Your task to perform on an android device: set default search engine in the chrome app Image 0: 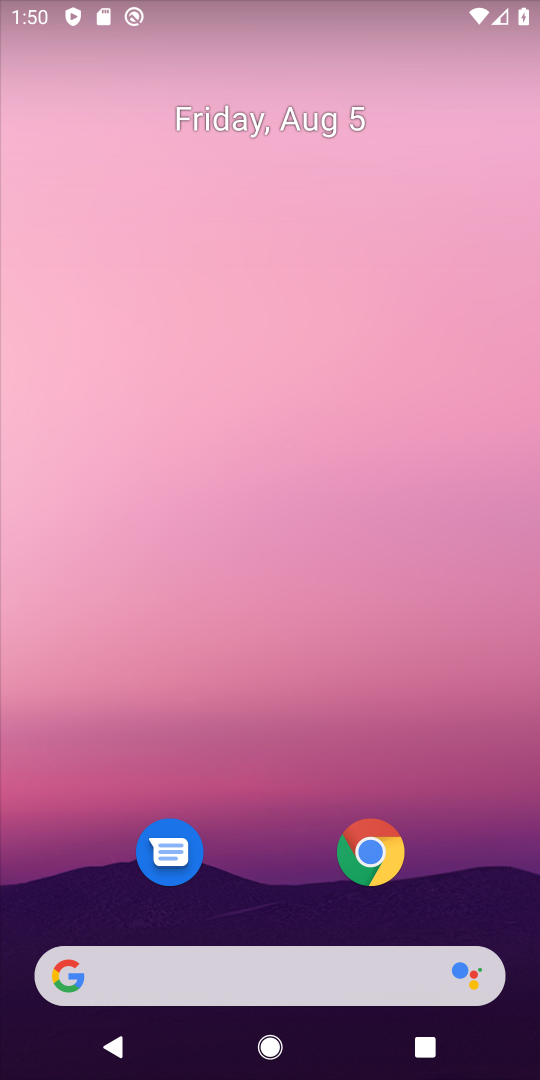
Step 0: click (357, 854)
Your task to perform on an android device: set default search engine in the chrome app Image 1: 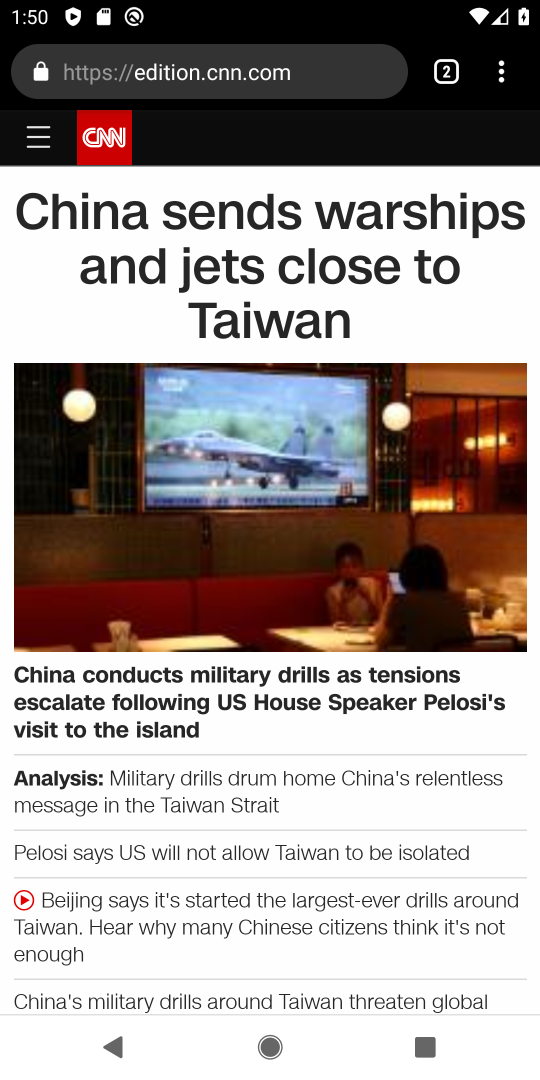
Step 1: click (500, 72)
Your task to perform on an android device: set default search engine in the chrome app Image 2: 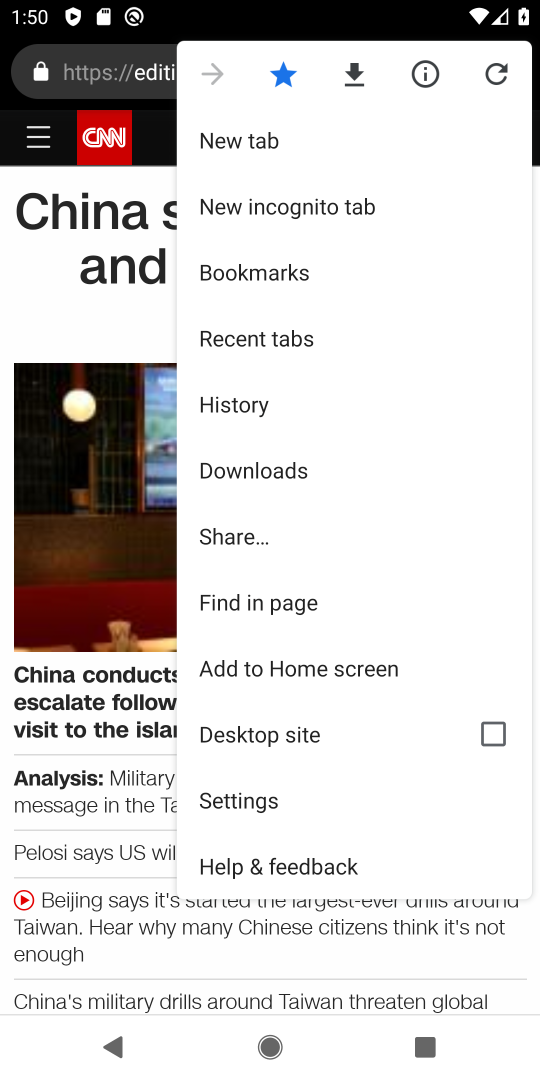
Step 2: click (248, 810)
Your task to perform on an android device: set default search engine in the chrome app Image 3: 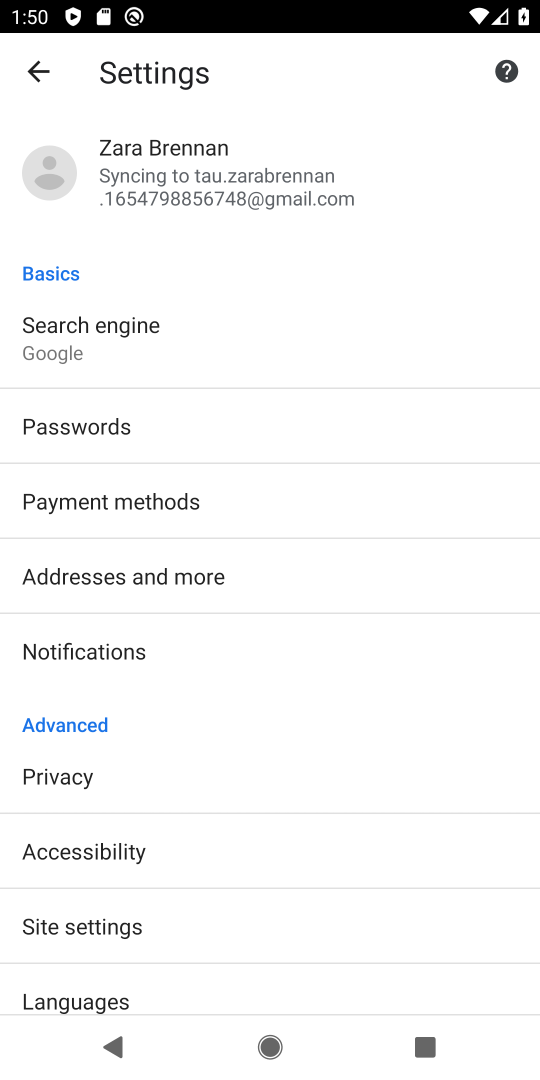
Step 3: click (99, 322)
Your task to perform on an android device: set default search engine in the chrome app Image 4: 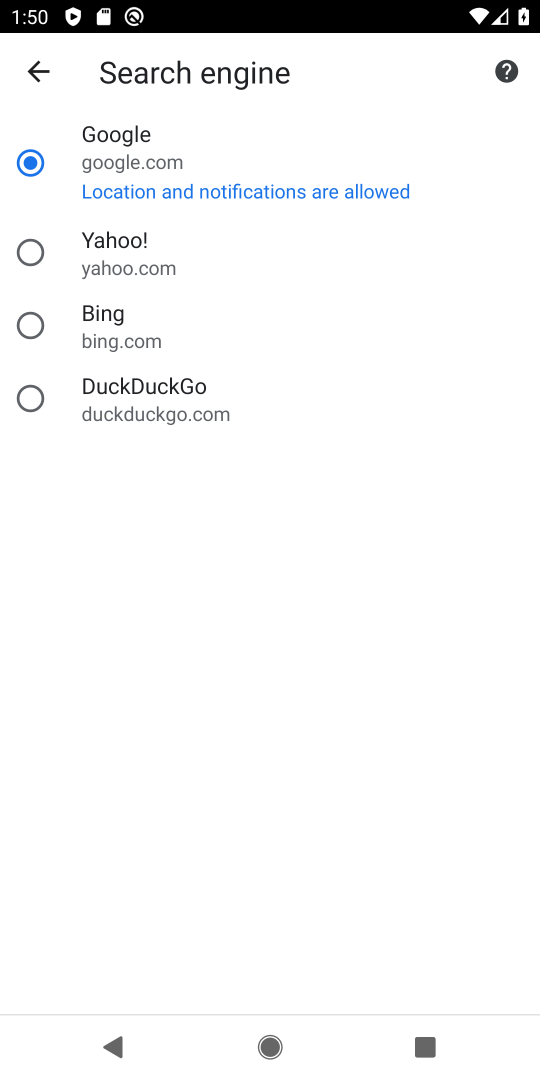
Step 4: task complete